Your task to perform on an android device: toggle priority inbox in the gmail app Image 0: 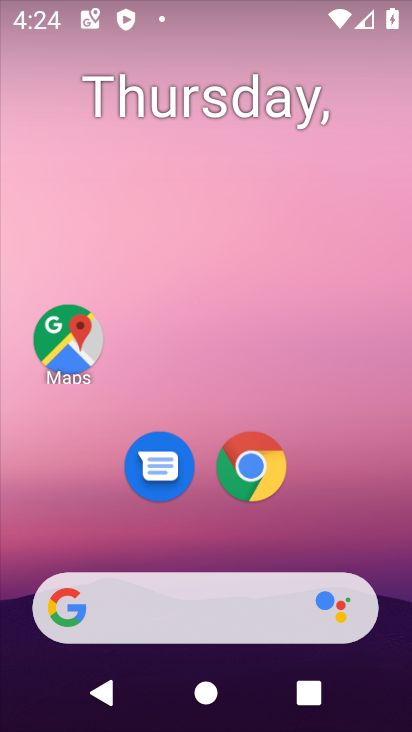
Step 0: drag from (317, 521) to (273, 123)
Your task to perform on an android device: toggle priority inbox in the gmail app Image 1: 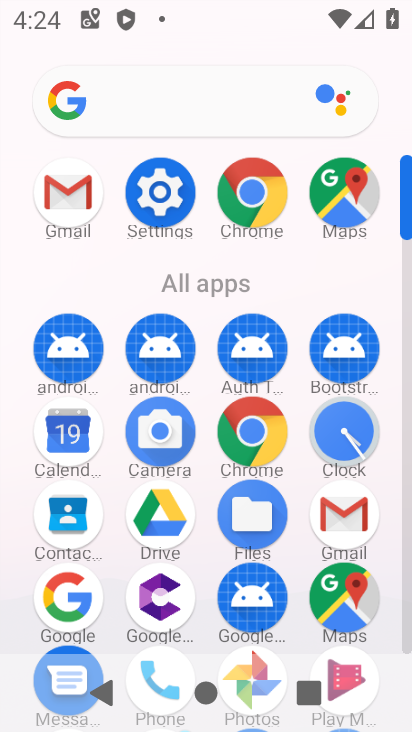
Step 1: click (49, 204)
Your task to perform on an android device: toggle priority inbox in the gmail app Image 2: 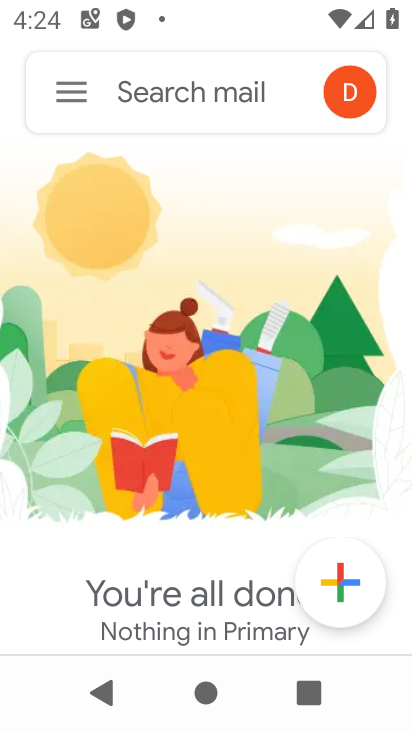
Step 2: click (74, 105)
Your task to perform on an android device: toggle priority inbox in the gmail app Image 3: 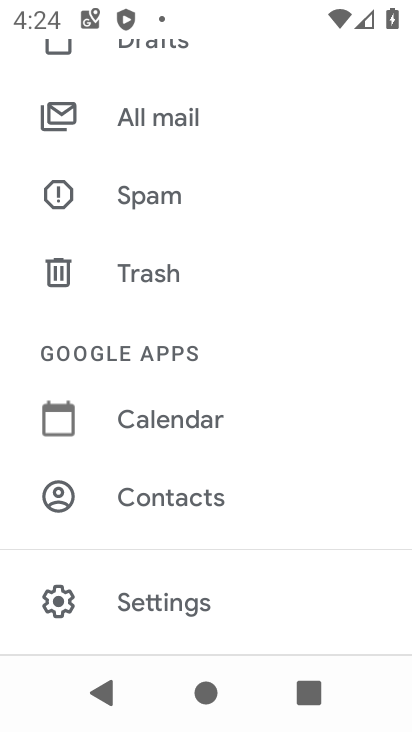
Step 3: click (166, 603)
Your task to perform on an android device: toggle priority inbox in the gmail app Image 4: 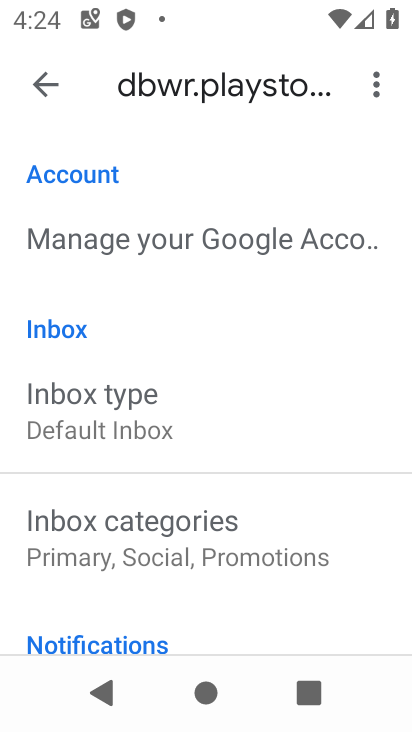
Step 4: click (97, 428)
Your task to perform on an android device: toggle priority inbox in the gmail app Image 5: 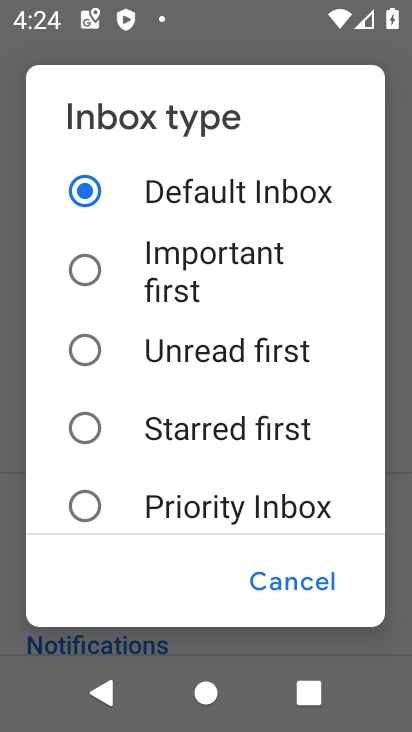
Step 5: drag from (164, 459) to (184, 230)
Your task to perform on an android device: toggle priority inbox in the gmail app Image 6: 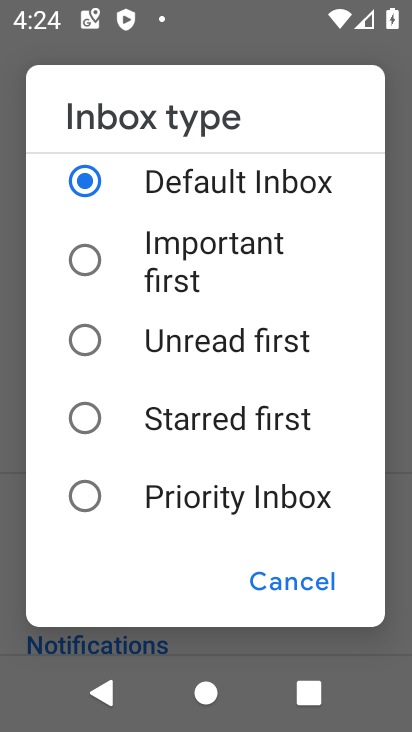
Step 6: click (82, 499)
Your task to perform on an android device: toggle priority inbox in the gmail app Image 7: 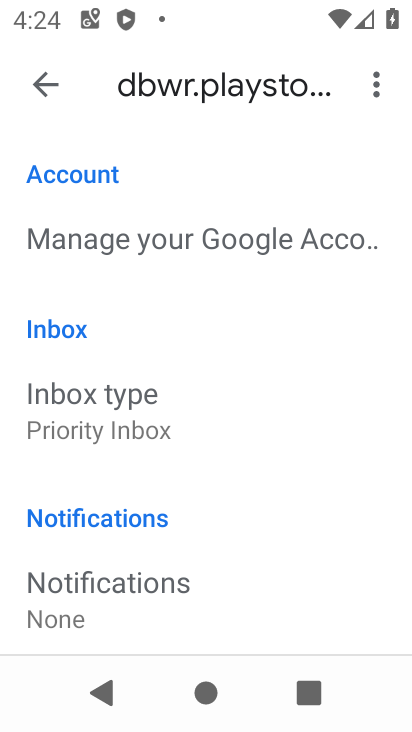
Step 7: task complete